Your task to perform on an android device: Do I have any events this weekend? Image 0: 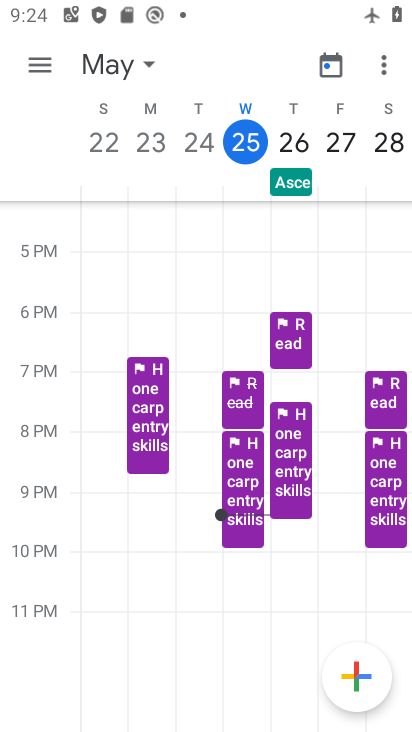
Step 0: press home button
Your task to perform on an android device: Do I have any events this weekend? Image 1: 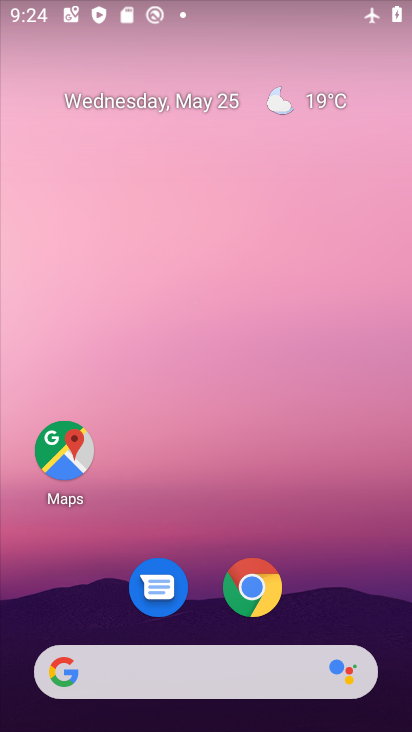
Step 1: drag from (398, 637) to (331, 91)
Your task to perform on an android device: Do I have any events this weekend? Image 2: 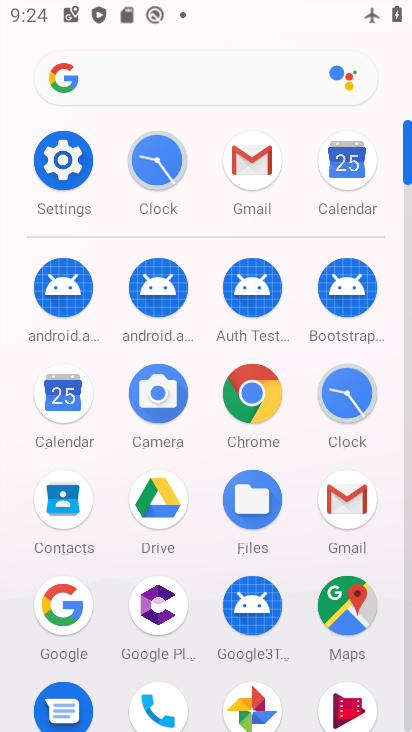
Step 2: click (409, 706)
Your task to perform on an android device: Do I have any events this weekend? Image 3: 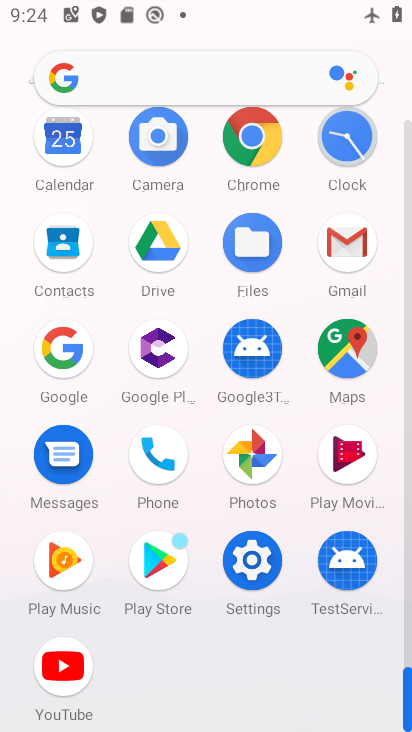
Step 3: click (65, 140)
Your task to perform on an android device: Do I have any events this weekend? Image 4: 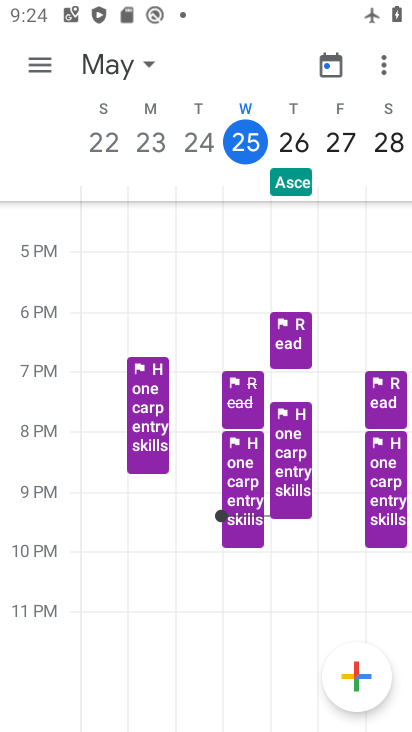
Step 4: click (43, 63)
Your task to perform on an android device: Do I have any events this weekend? Image 5: 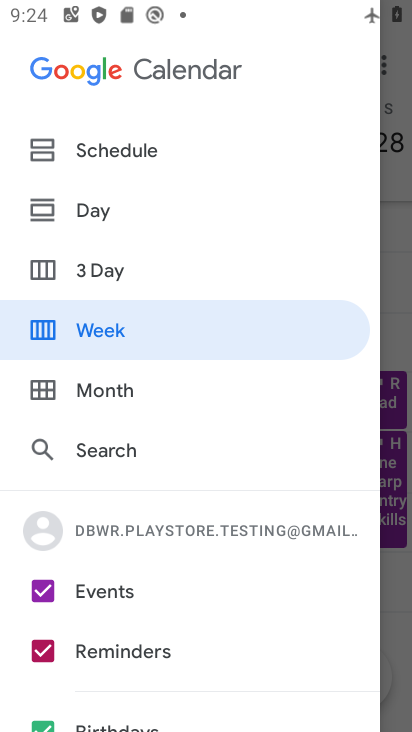
Step 5: click (125, 320)
Your task to perform on an android device: Do I have any events this weekend? Image 6: 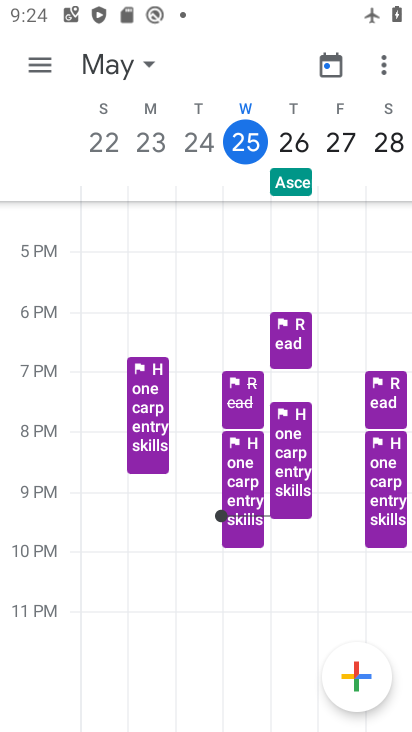
Step 6: task complete